Your task to perform on an android device: open the mobile data screen to see how much data has been used Image 0: 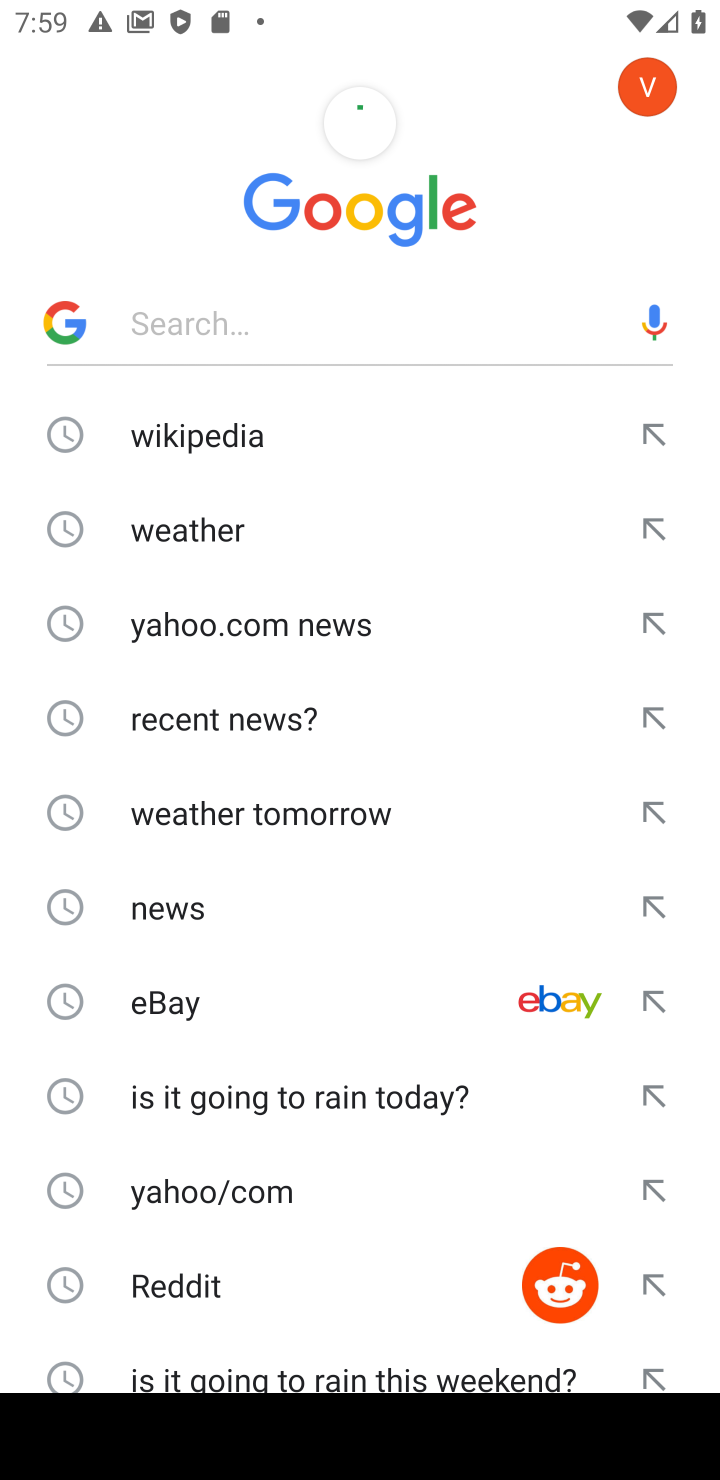
Step 0: press home button
Your task to perform on an android device: open the mobile data screen to see how much data has been used Image 1: 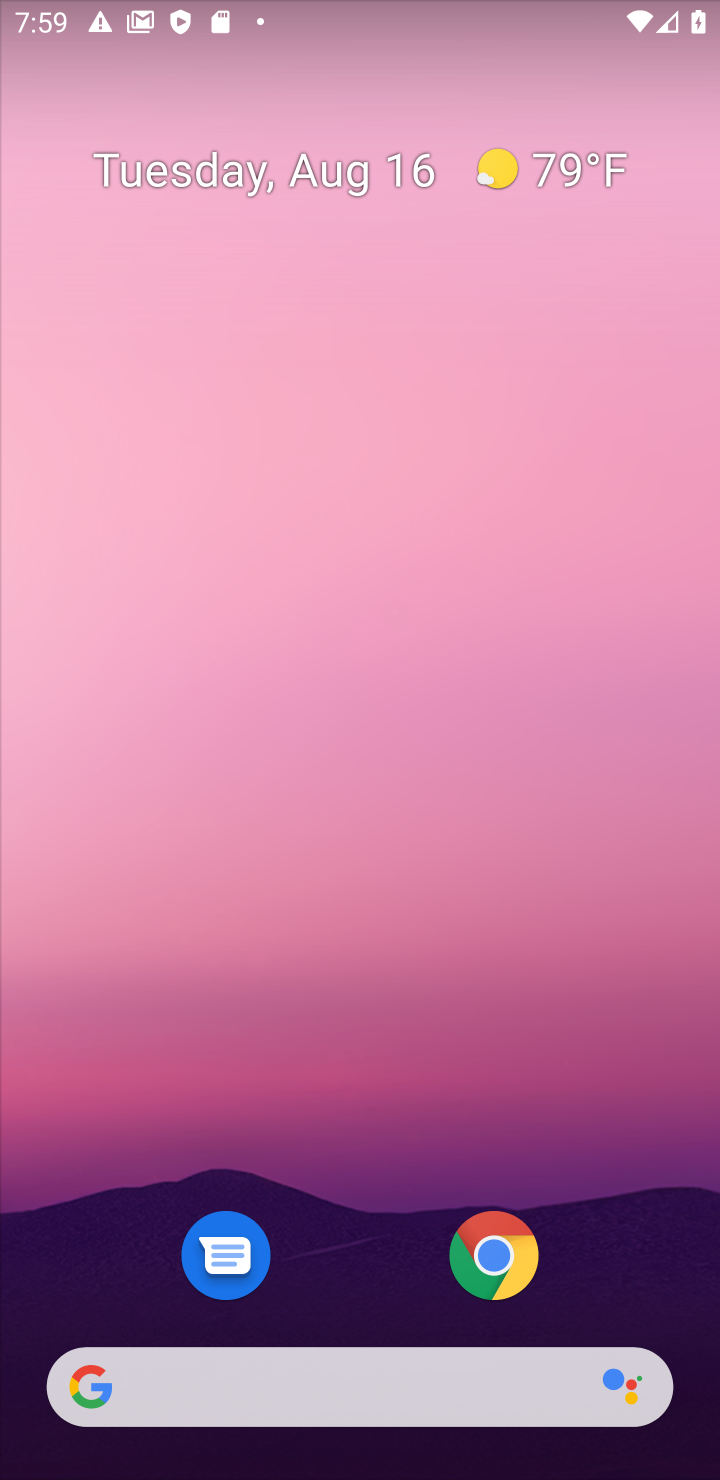
Step 1: drag from (413, 1372) to (405, 69)
Your task to perform on an android device: open the mobile data screen to see how much data has been used Image 2: 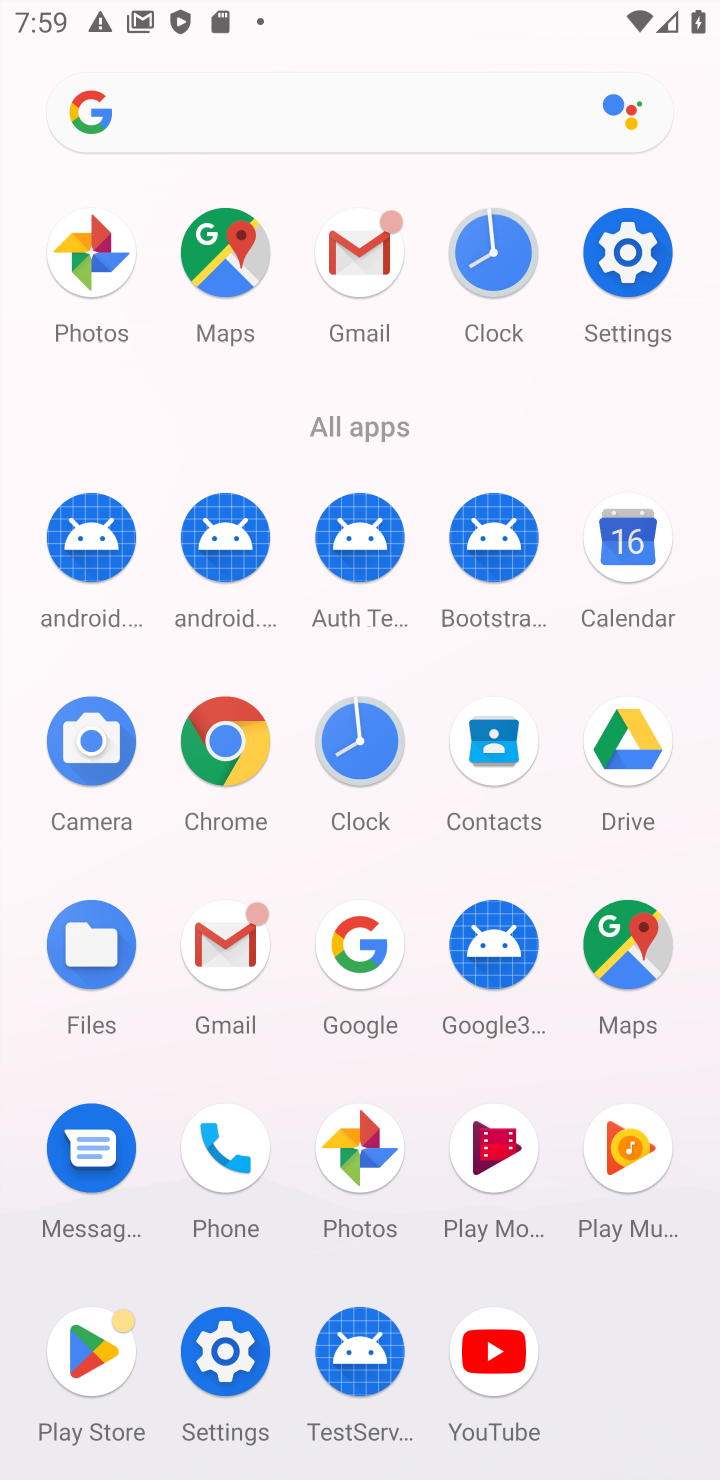
Step 2: click (613, 283)
Your task to perform on an android device: open the mobile data screen to see how much data has been used Image 3: 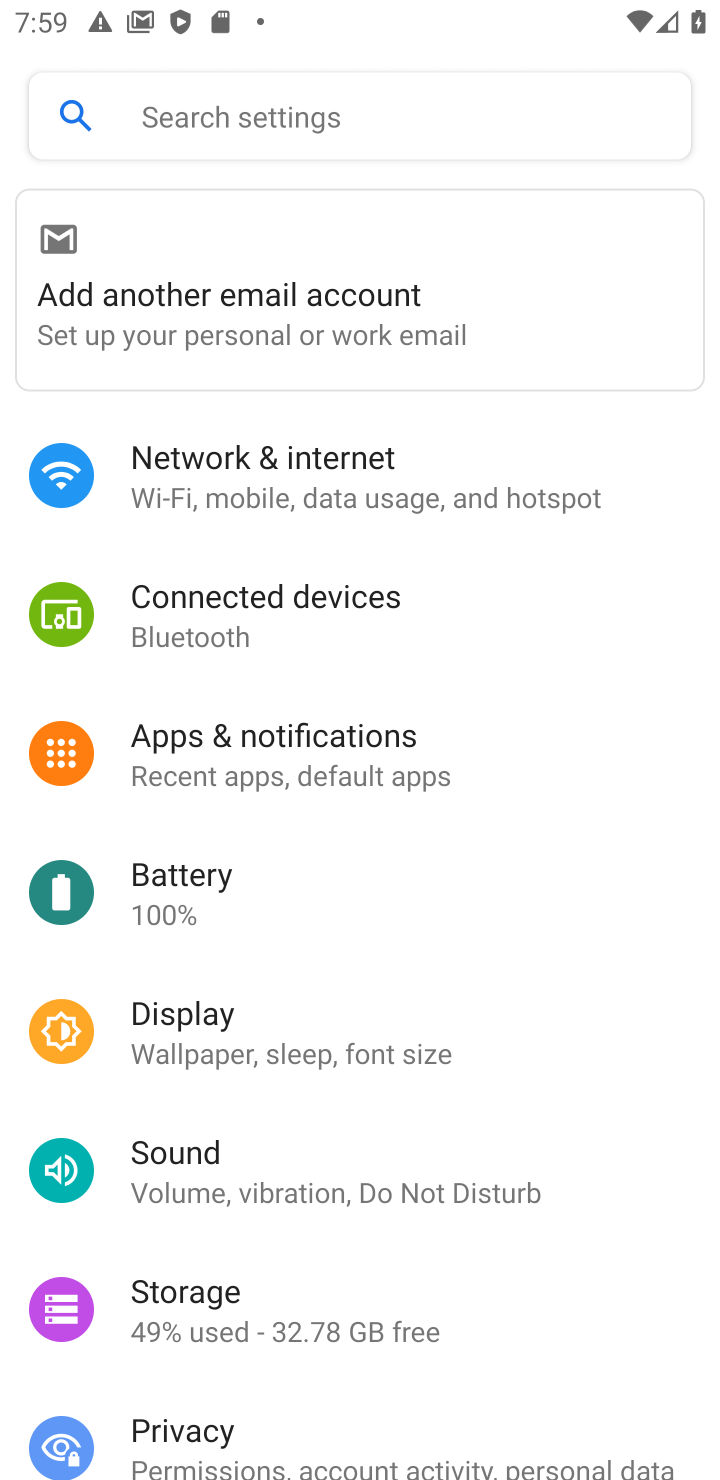
Step 3: click (308, 451)
Your task to perform on an android device: open the mobile data screen to see how much data has been used Image 4: 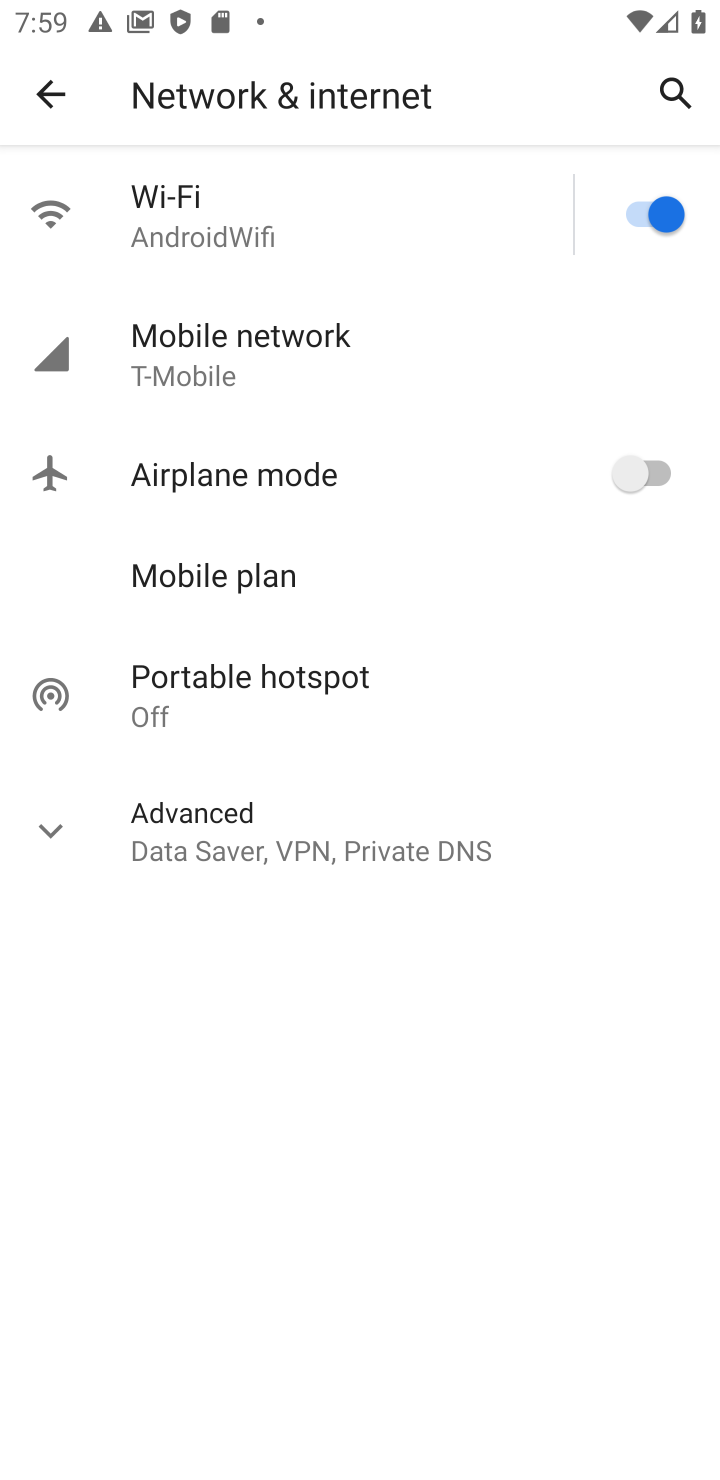
Step 4: click (302, 350)
Your task to perform on an android device: open the mobile data screen to see how much data has been used Image 5: 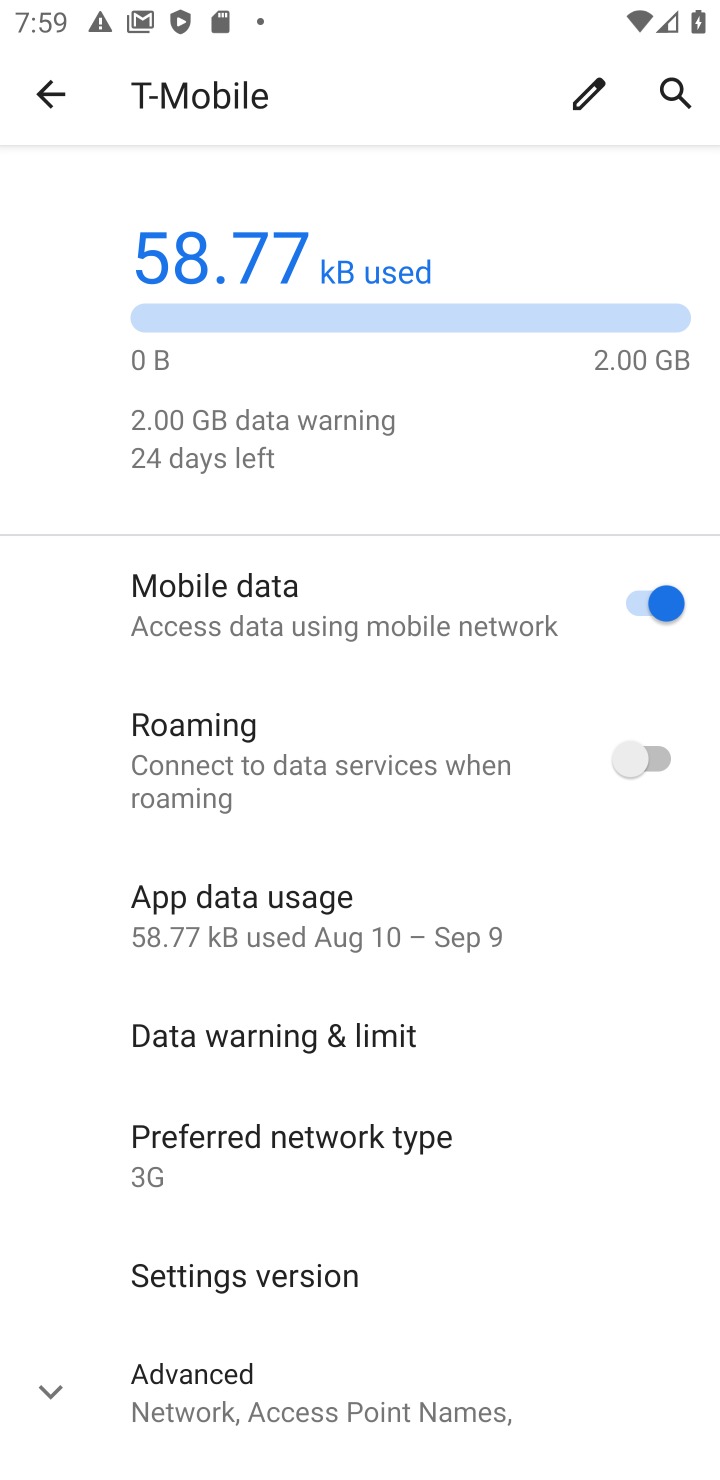
Step 5: task complete